Your task to perform on an android device: show emergency info Image 0: 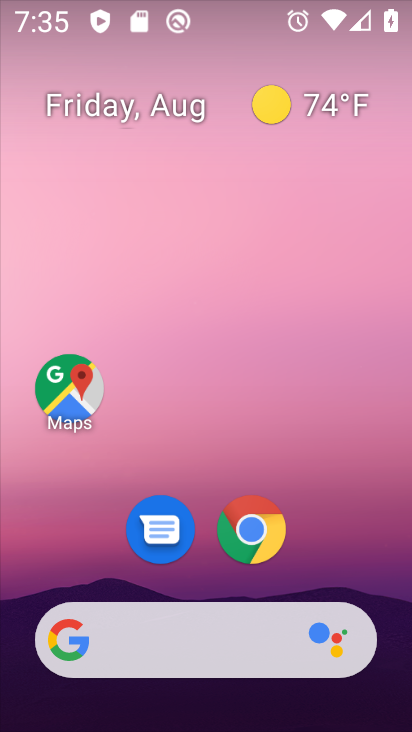
Step 0: drag from (210, 629) to (218, 102)
Your task to perform on an android device: show emergency info Image 1: 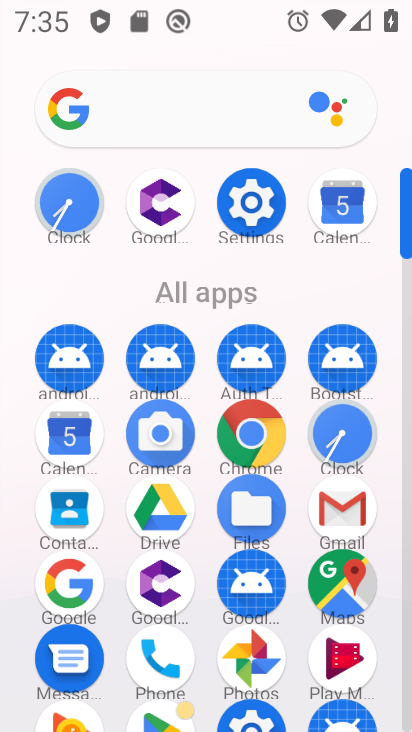
Step 1: click (250, 201)
Your task to perform on an android device: show emergency info Image 2: 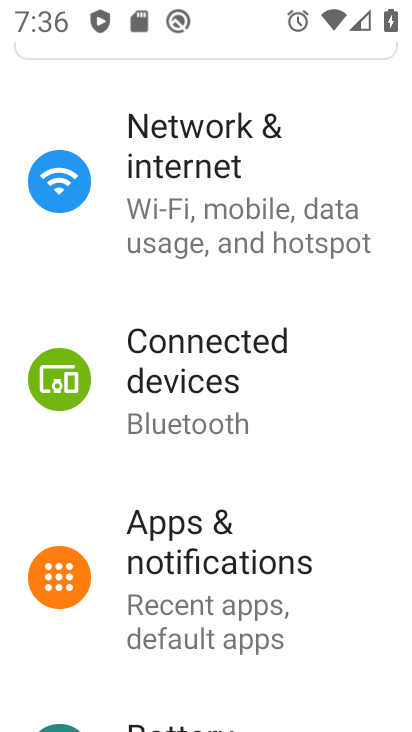
Step 2: drag from (229, 467) to (341, 322)
Your task to perform on an android device: show emergency info Image 3: 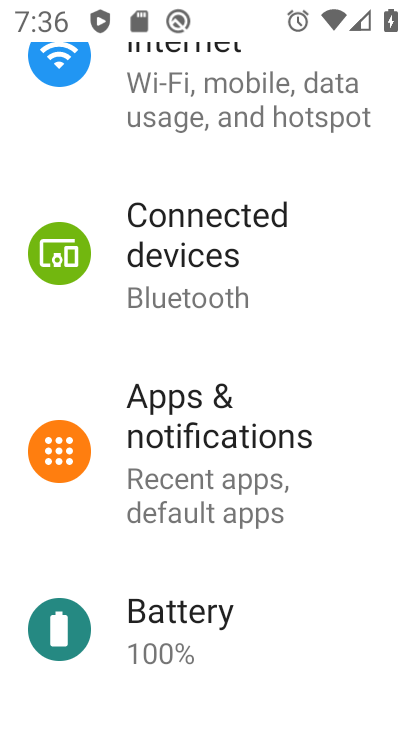
Step 3: drag from (197, 544) to (316, 402)
Your task to perform on an android device: show emergency info Image 4: 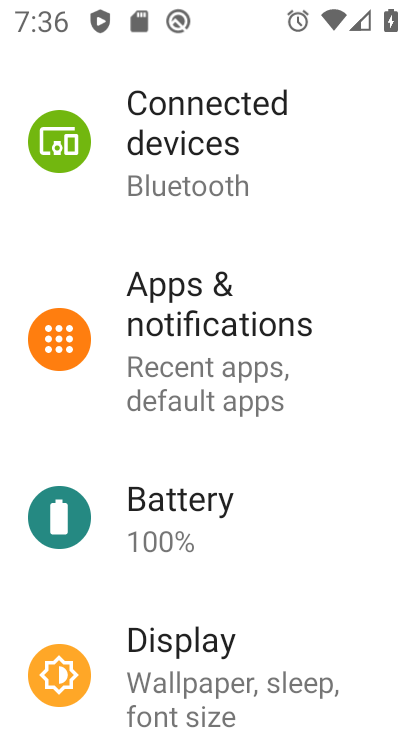
Step 4: drag from (184, 604) to (255, 465)
Your task to perform on an android device: show emergency info Image 5: 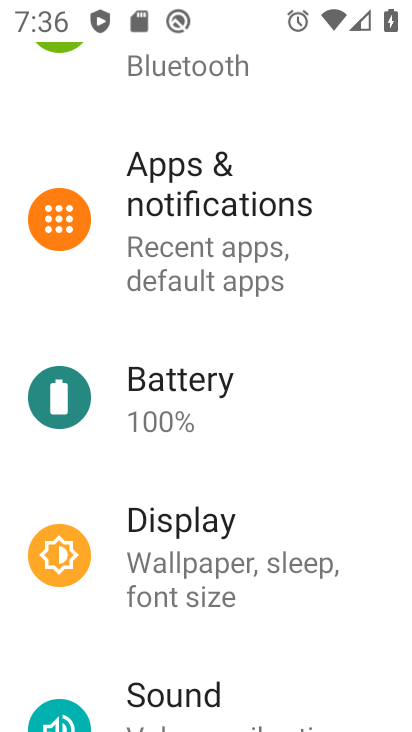
Step 5: drag from (182, 636) to (291, 492)
Your task to perform on an android device: show emergency info Image 6: 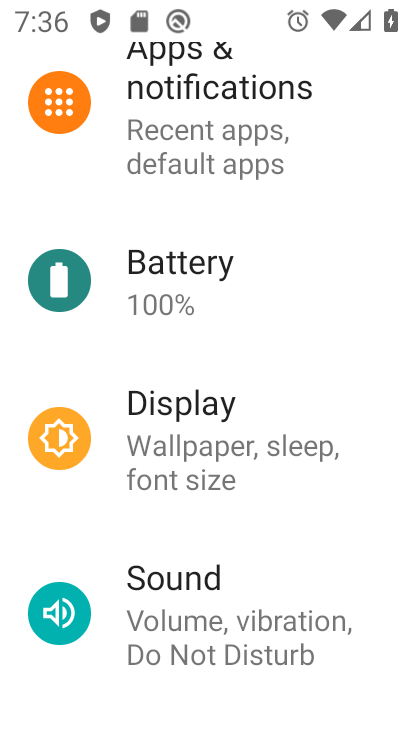
Step 6: drag from (161, 554) to (293, 379)
Your task to perform on an android device: show emergency info Image 7: 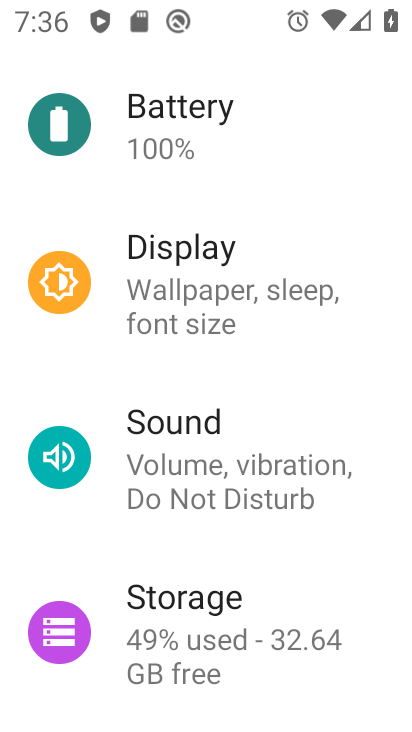
Step 7: drag from (191, 568) to (337, 347)
Your task to perform on an android device: show emergency info Image 8: 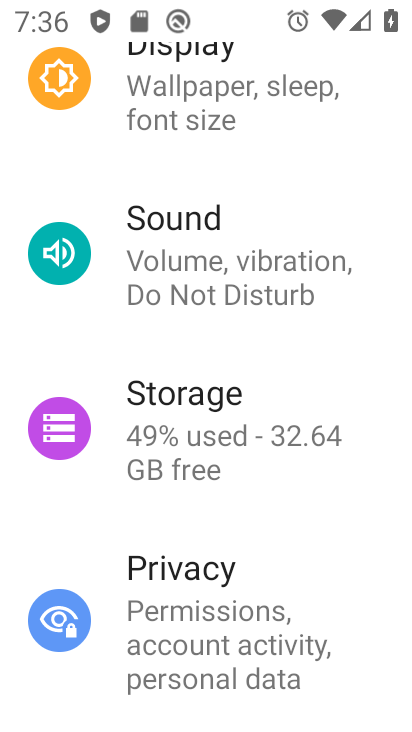
Step 8: drag from (173, 536) to (326, 356)
Your task to perform on an android device: show emergency info Image 9: 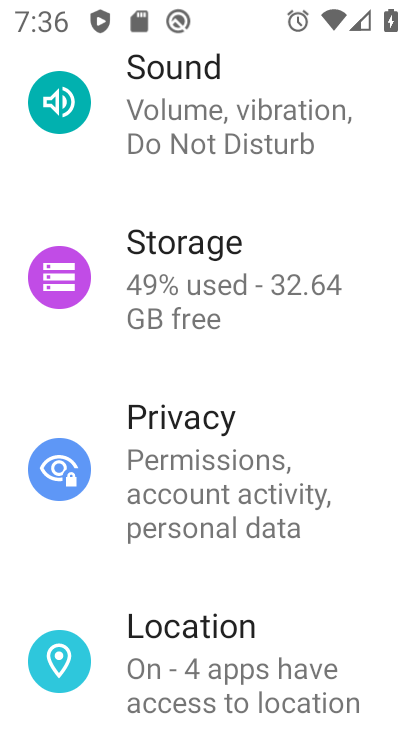
Step 9: drag from (225, 610) to (368, 424)
Your task to perform on an android device: show emergency info Image 10: 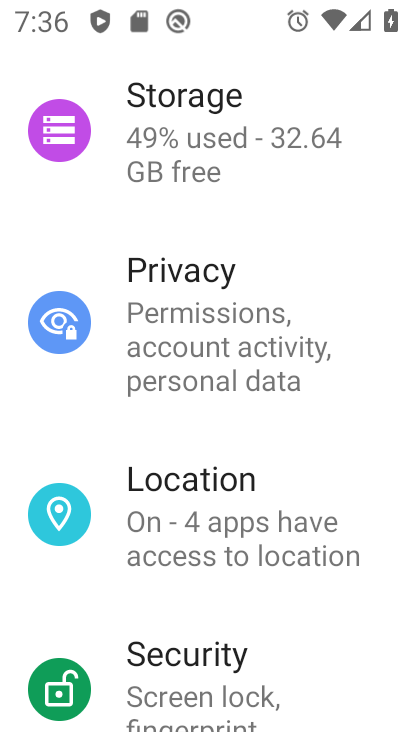
Step 10: drag from (203, 623) to (310, 448)
Your task to perform on an android device: show emergency info Image 11: 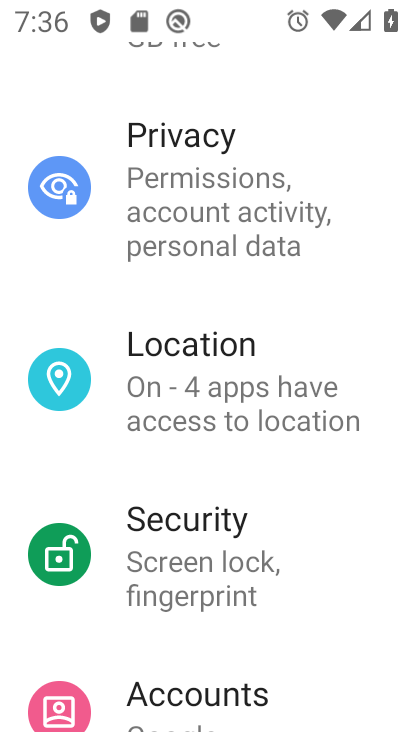
Step 11: drag from (223, 634) to (309, 480)
Your task to perform on an android device: show emergency info Image 12: 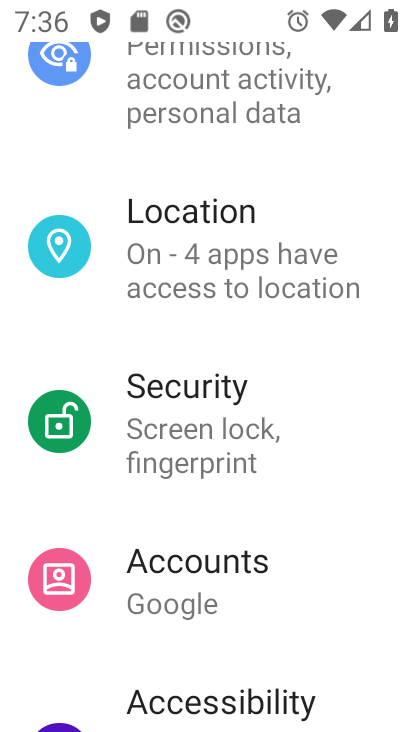
Step 12: drag from (193, 672) to (315, 507)
Your task to perform on an android device: show emergency info Image 13: 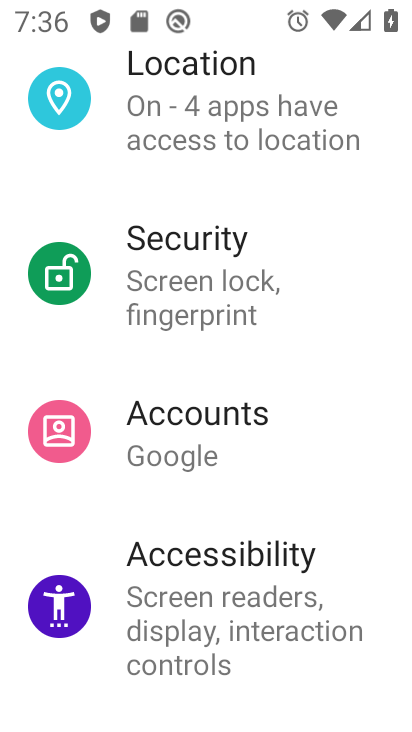
Step 13: drag from (204, 704) to (329, 524)
Your task to perform on an android device: show emergency info Image 14: 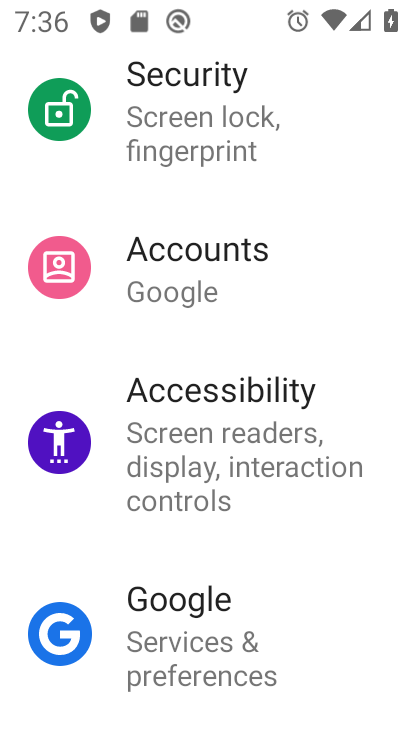
Step 14: drag from (231, 582) to (344, 389)
Your task to perform on an android device: show emergency info Image 15: 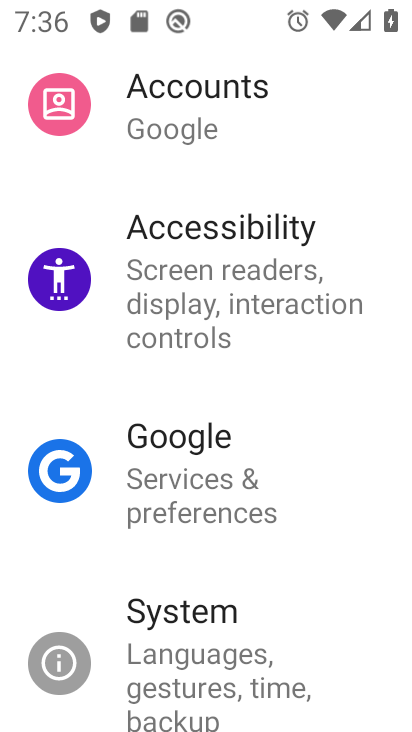
Step 15: drag from (243, 582) to (353, 389)
Your task to perform on an android device: show emergency info Image 16: 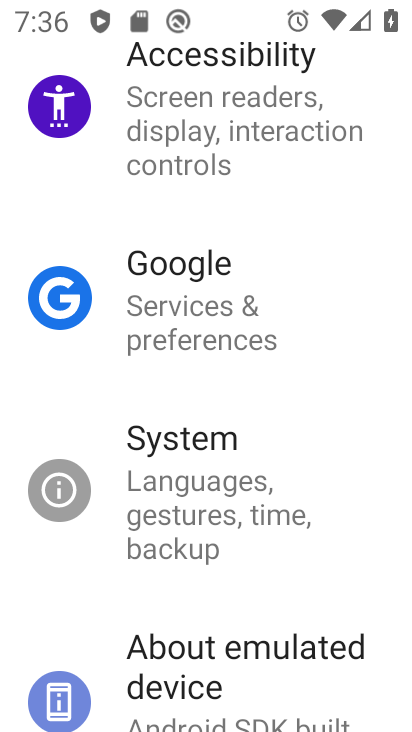
Step 16: click (207, 646)
Your task to perform on an android device: show emergency info Image 17: 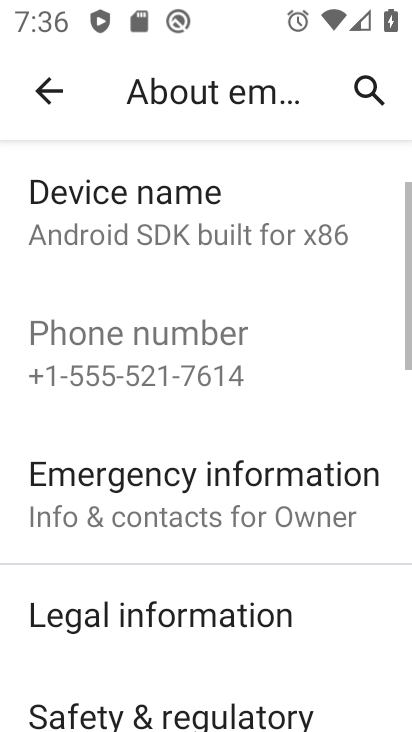
Step 17: click (181, 486)
Your task to perform on an android device: show emergency info Image 18: 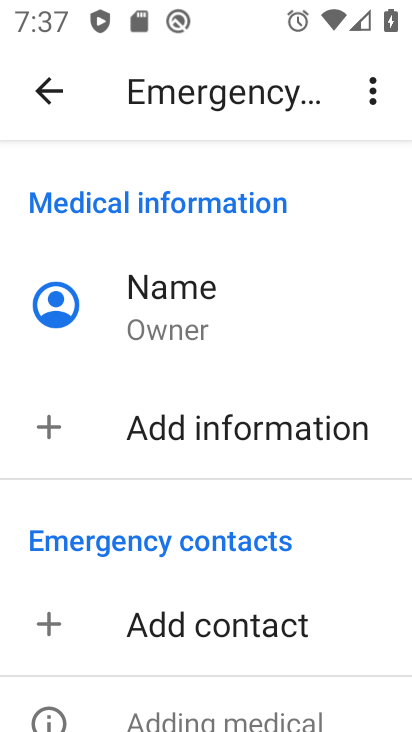
Step 18: task complete